Your task to perform on an android device: What's the weather going to be tomorrow? Image 0: 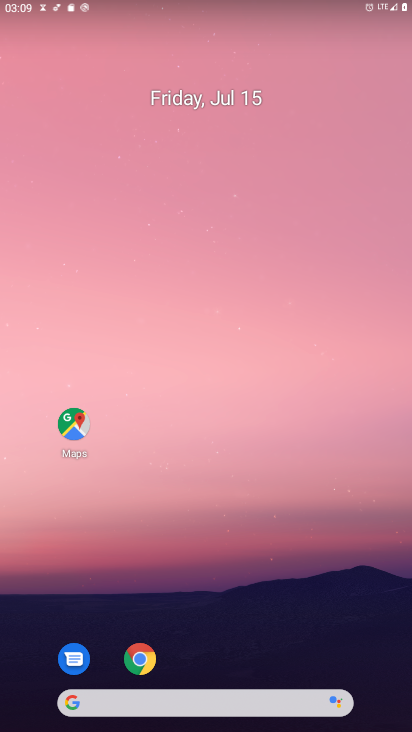
Step 0: drag from (247, 657) to (264, 200)
Your task to perform on an android device: What's the weather going to be tomorrow? Image 1: 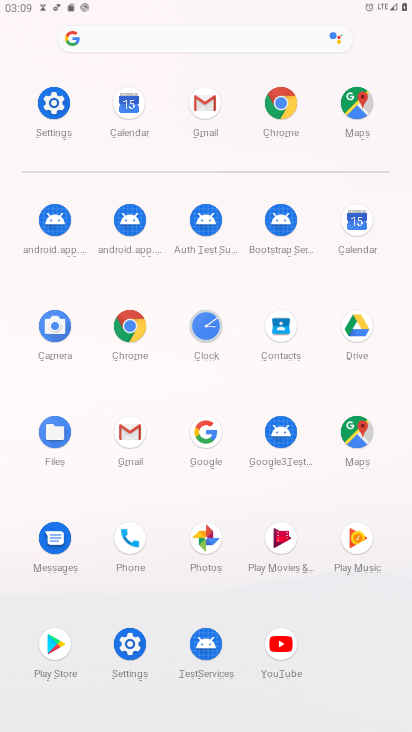
Step 1: click (283, 107)
Your task to perform on an android device: What's the weather going to be tomorrow? Image 2: 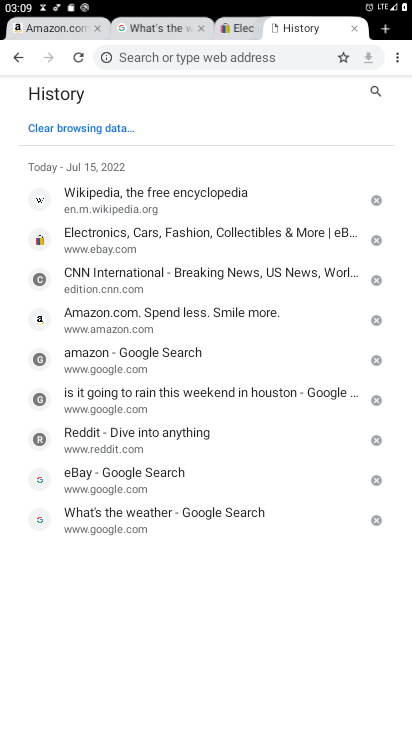
Step 2: click (167, 29)
Your task to perform on an android device: What's the weather going to be tomorrow? Image 3: 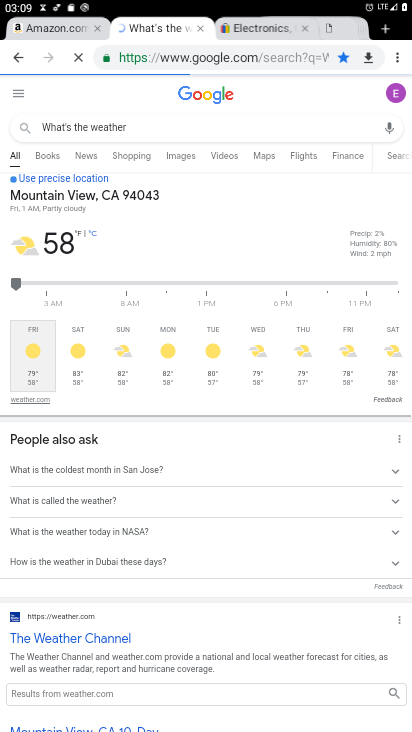
Step 3: click (162, 28)
Your task to perform on an android device: What's the weather going to be tomorrow? Image 4: 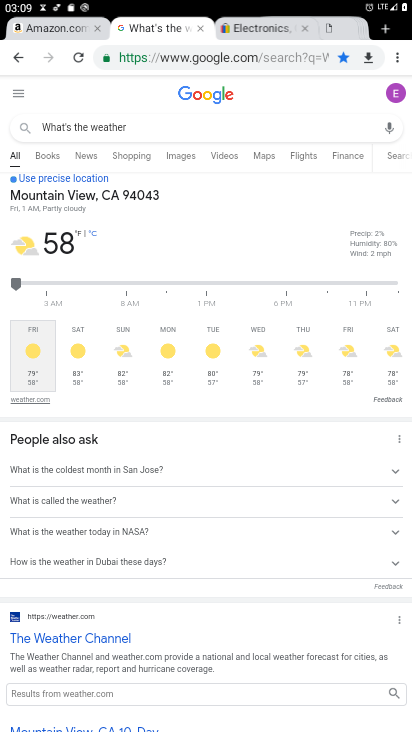
Step 4: click (387, 20)
Your task to perform on an android device: What's the weather going to be tomorrow? Image 5: 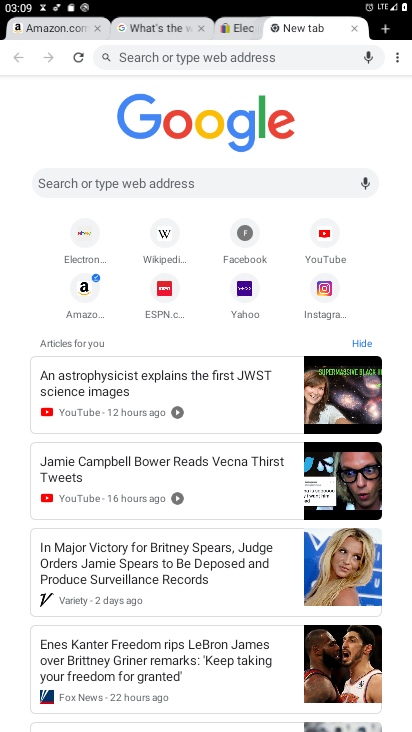
Step 5: click (170, 178)
Your task to perform on an android device: What's the weather going to be tomorrow? Image 6: 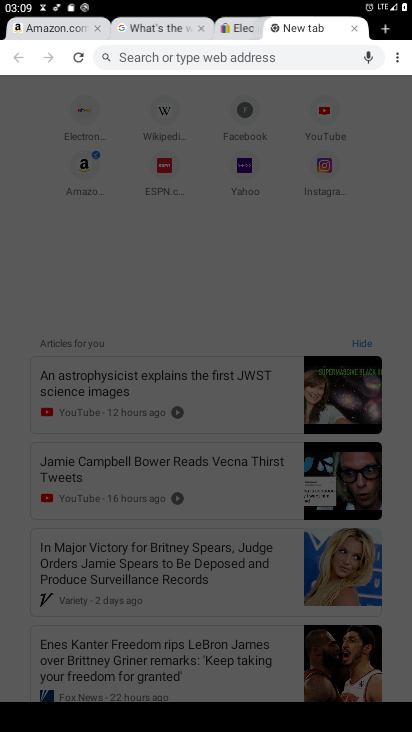
Step 6: type "What's the weather going to be tomorrow "
Your task to perform on an android device: What's the weather going to be tomorrow? Image 7: 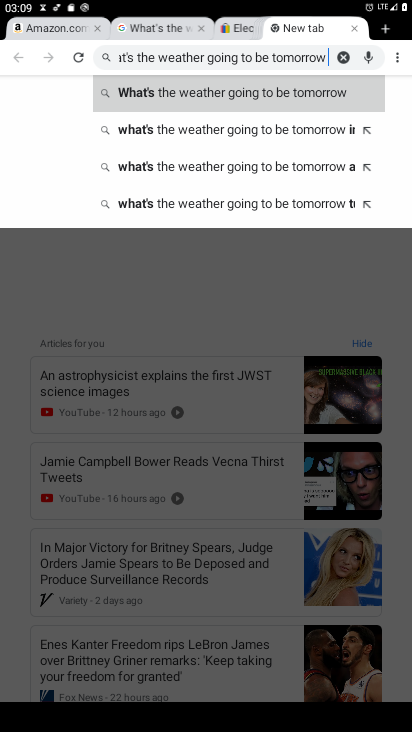
Step 7: click (242, 86)
Your task to perform on an android device: What's the weather going to be tomorrow? Image 8: 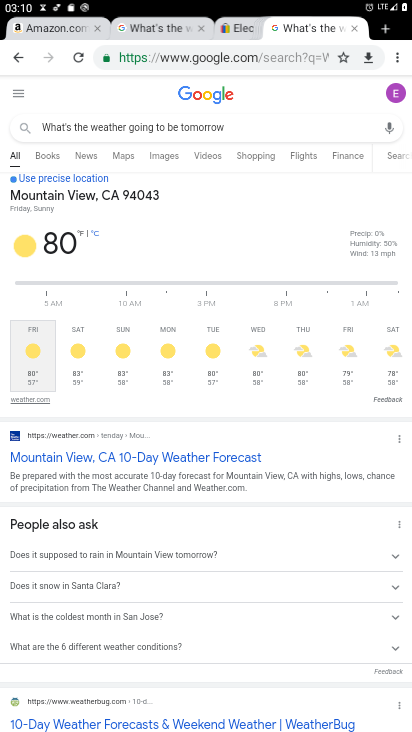
Step 8: task complete